Your task to perform on an android device: Open the web browser Image 0: 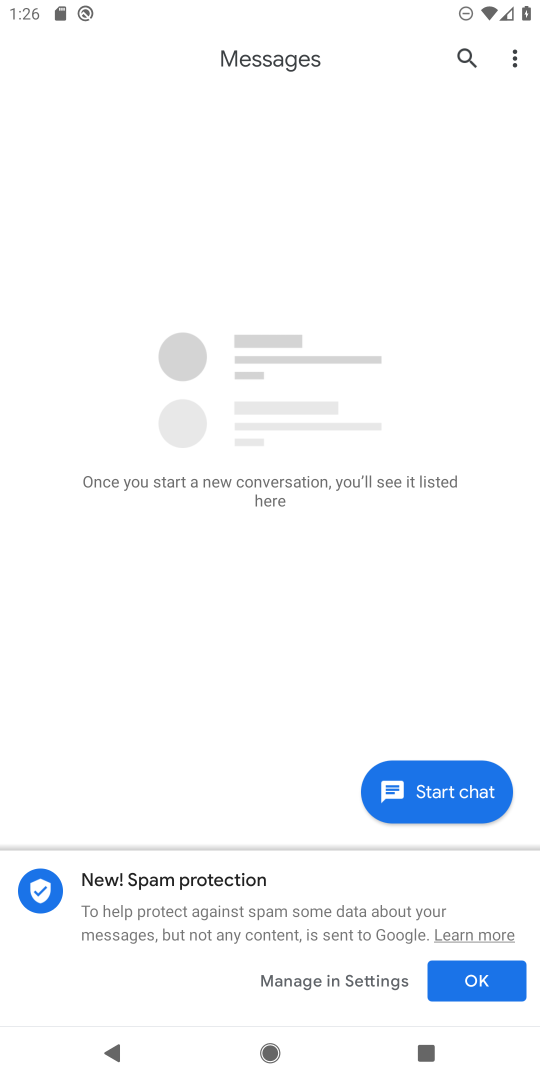
Step 0: press home button
Your task to perform on an android device: Open the web browser Image 1: 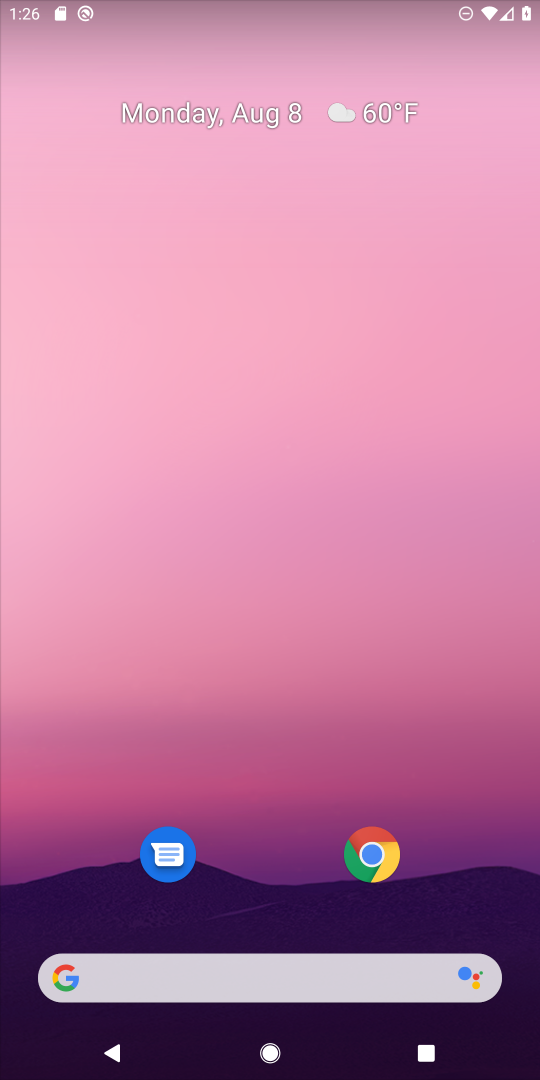
Step 1: click (58, 975)
Your task to perform on an android device: Open the web browser Image 2: 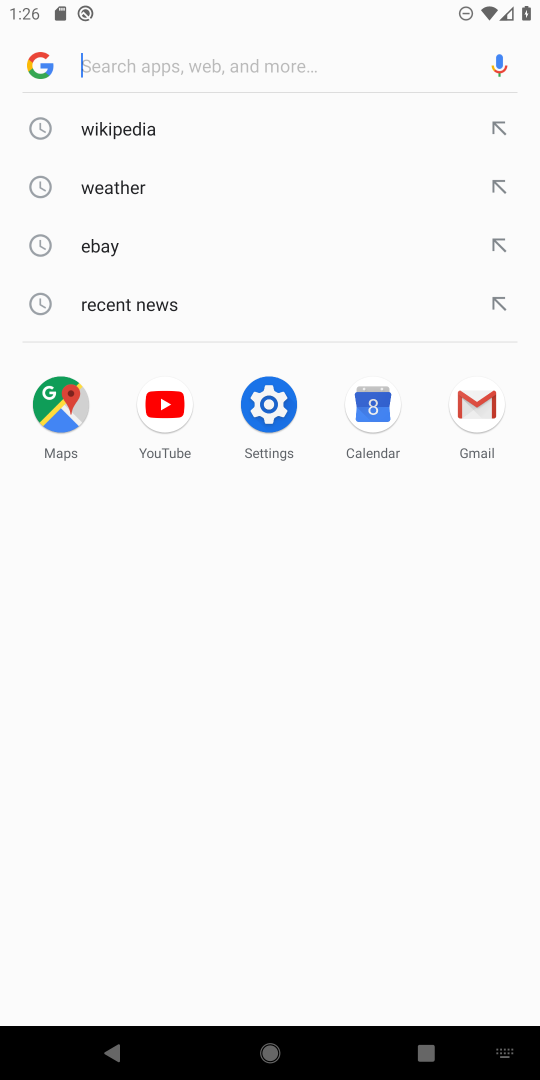
Step 2: task complete